Your task to perform on an android device: Set the phone to "Do not disturb". Image 0: 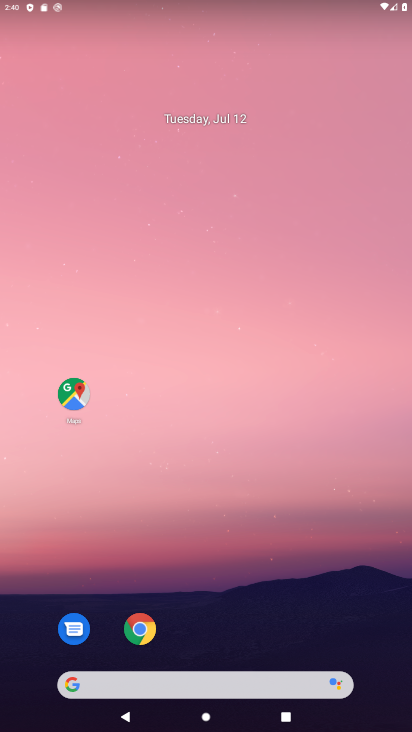
Step 0: drag from (183, 680) to (243, 225)
Your task to perform on an android device: Set the phone to "Do not disturb". Image 1: 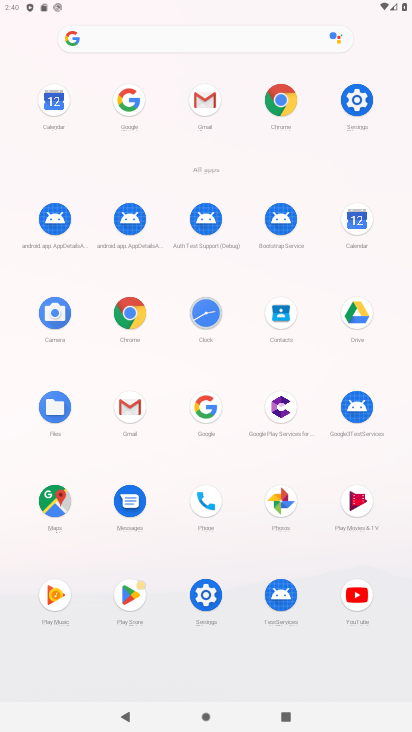
Step 1: click (356, 98)
Your task to perform on an android device: Set the phone to "Do not disturb". Image 2: 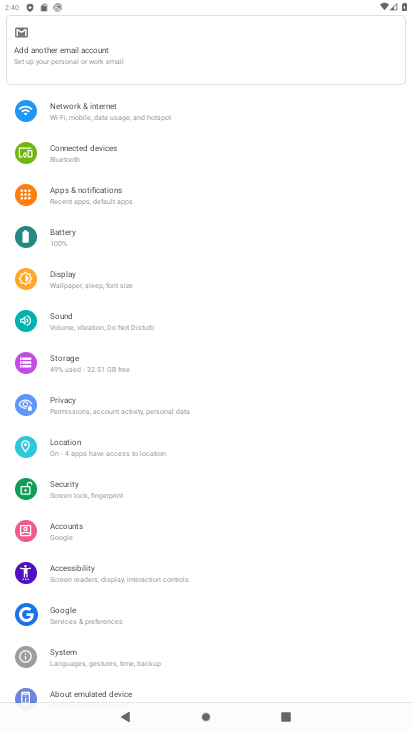
Step 2: click (104, 326)
Your task to perform on an android device: Set the phone to "Do not disturb". Image 3: 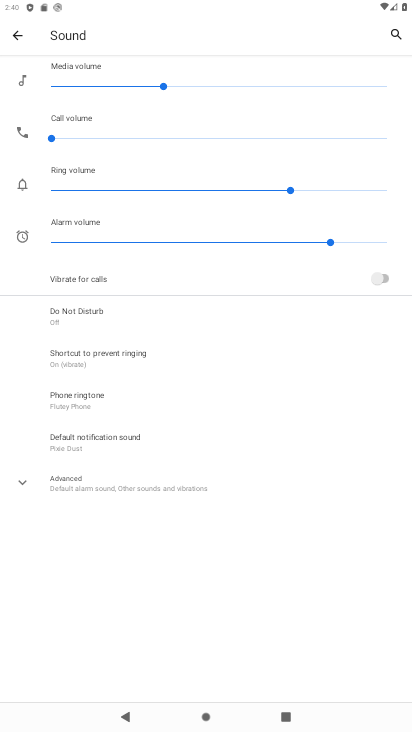
Step 3: click (88, 319)
Your task to perform on an android device: Set the phone to "Do not disturb". Image 4: 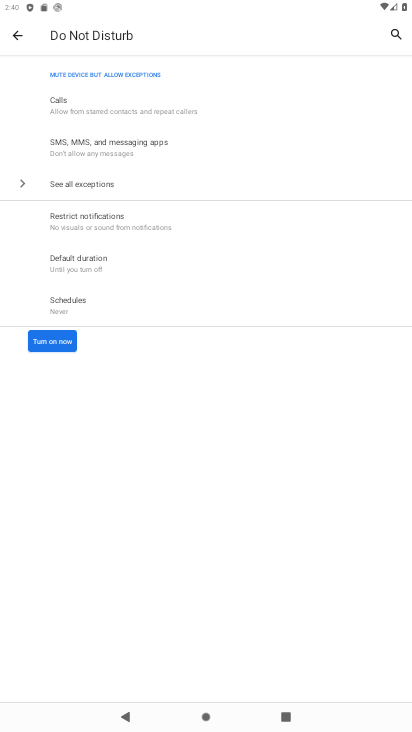
Step 4: click (53, 340)
Your task to perform on an android device: Set the phone to "Do not disturb". Image 5: 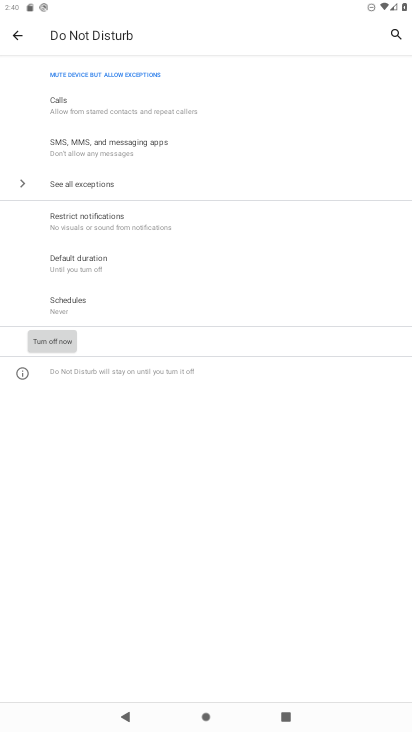
Step 5: task complete